Your task to perform on an android device: open app "Google Play Games" Image 0: 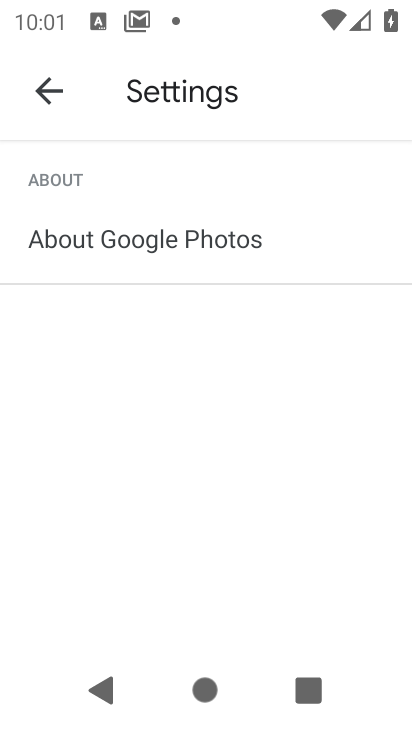
Step 0: press home button
Your task to perform on an android device: open app "Google Play Games" Image 1: 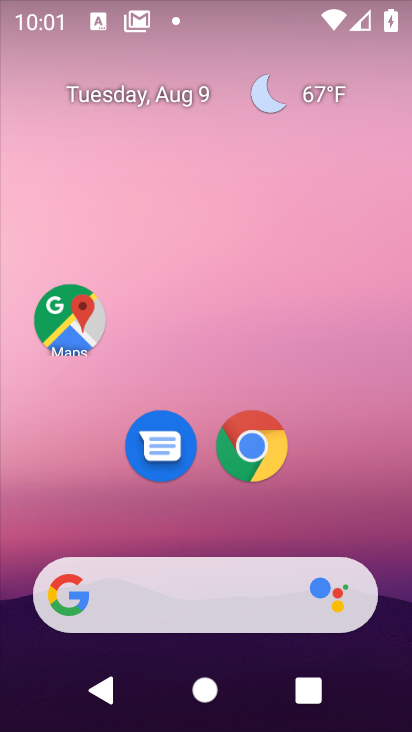
Step 1: drag from (216, 518) to (252, 62)
Your task to perform on an android device: open app "Google Play Games" Image 2: 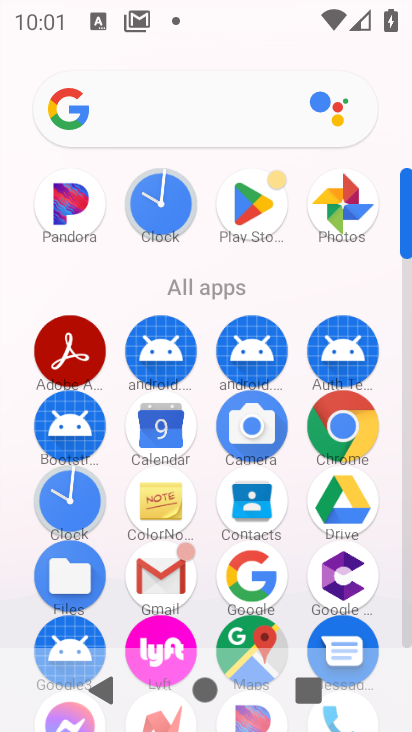
Step 2: click (252, 200)
Your task to perform on an android device: open app "Google Play Games" Image 3: 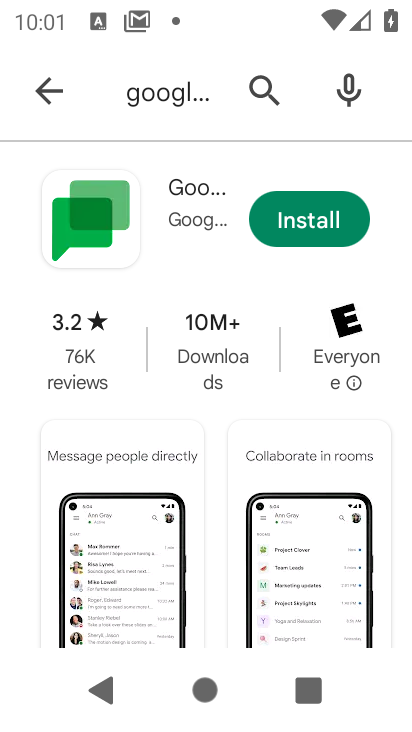
Step 3: click (262, 87)
Your task to perform on an android device: open app "Google Play Games" Image 4: 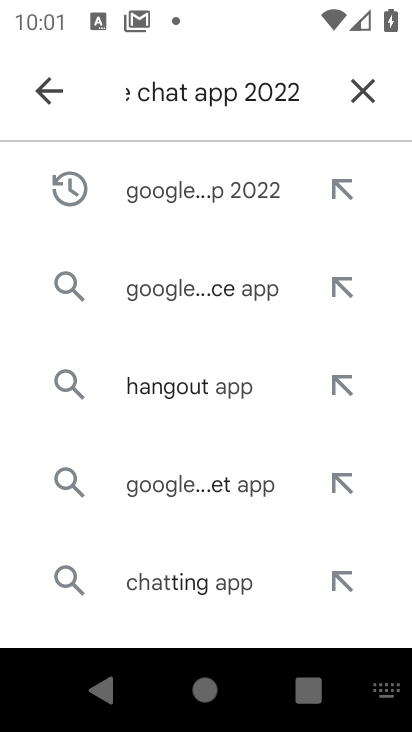
Step 4: click (357, 82)
Your task to perform on an android device: open app "Google Play Games" Image 5: 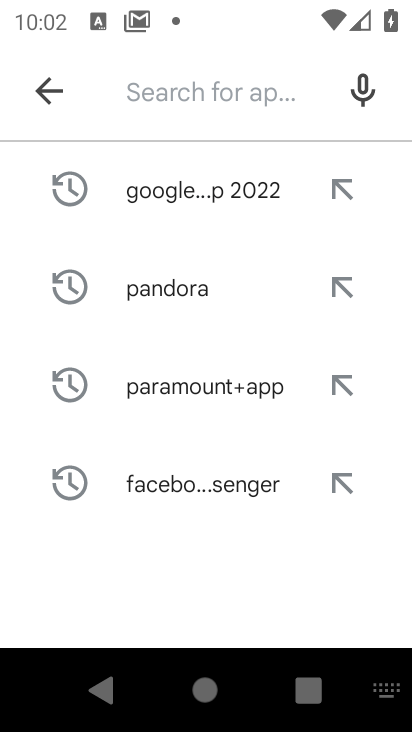
Step 5: click (196, 91)
Your task to perform on an android device: open app "Google Play Games" Image 6: 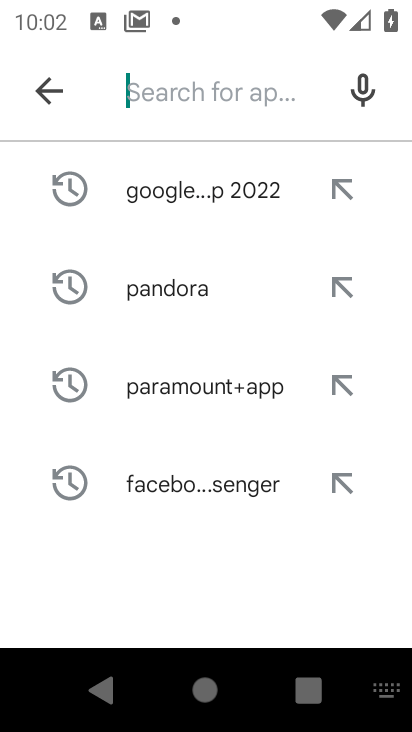
Step 6: type "Google Play Games"
Your task to perform on an android device: open app "Google Play Games" Image 7: 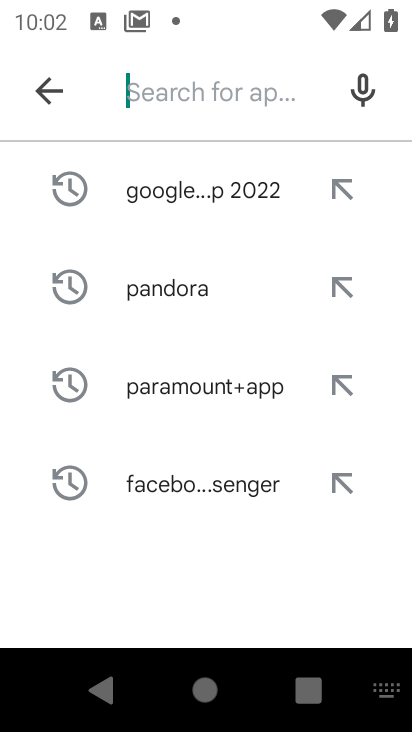
Step 7: click (183, 508)
Your task to perform on an android device: open app "Google Play Games" Image 8: 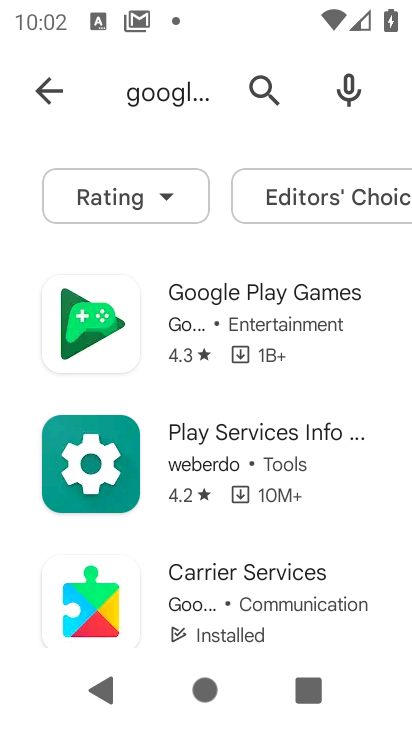
Step 8: click (206, 304)
Your task to perform on an android device: open app "Google Play Games" Image 9: 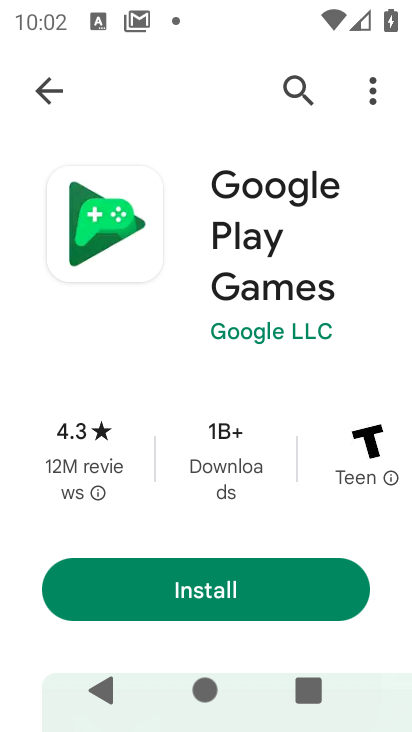
Step 9: task complete